Your task to perform on an android device: open app "Google Chrome" (install if not already installed) Image 0: 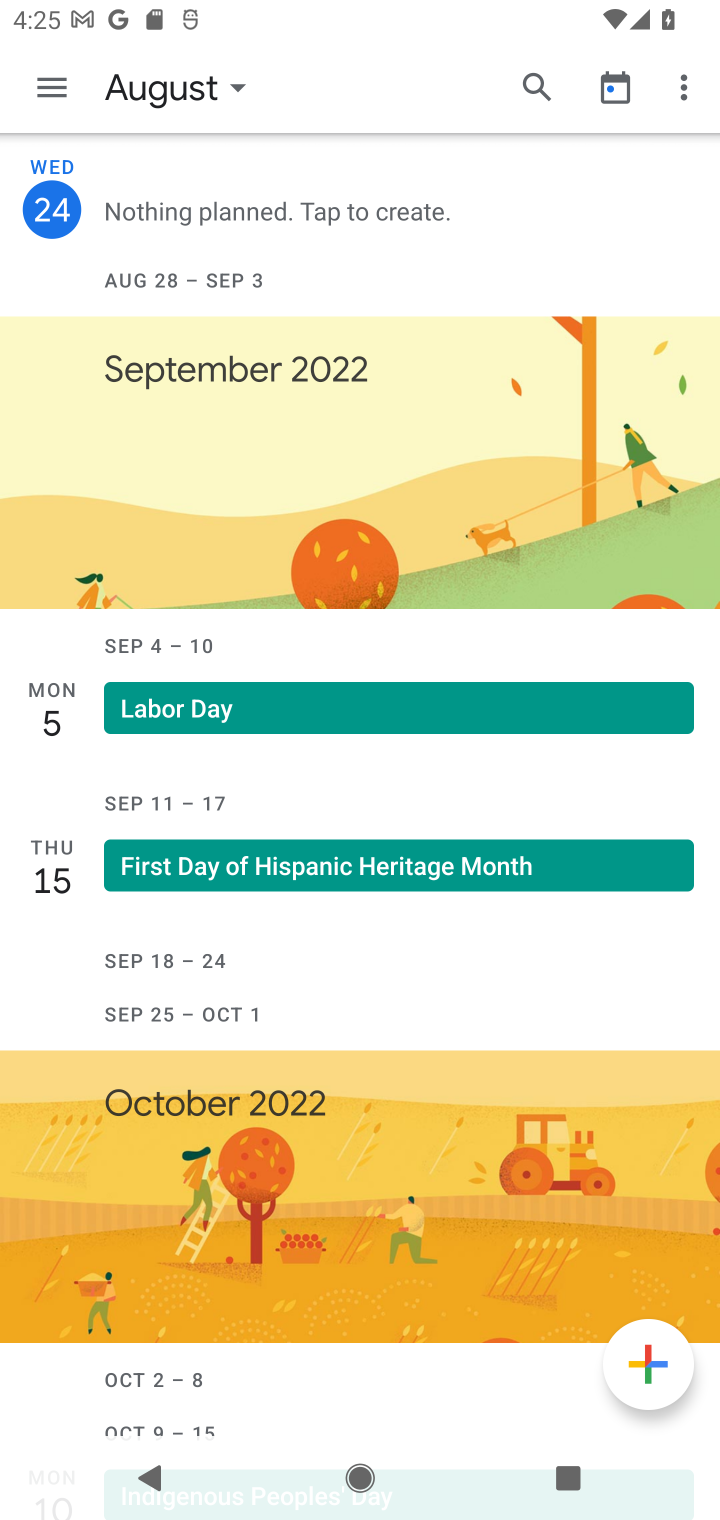
Step 0: press home button
Your task to perform on an android device: open app "Google Chrome" (install if not already installed) Image 1: 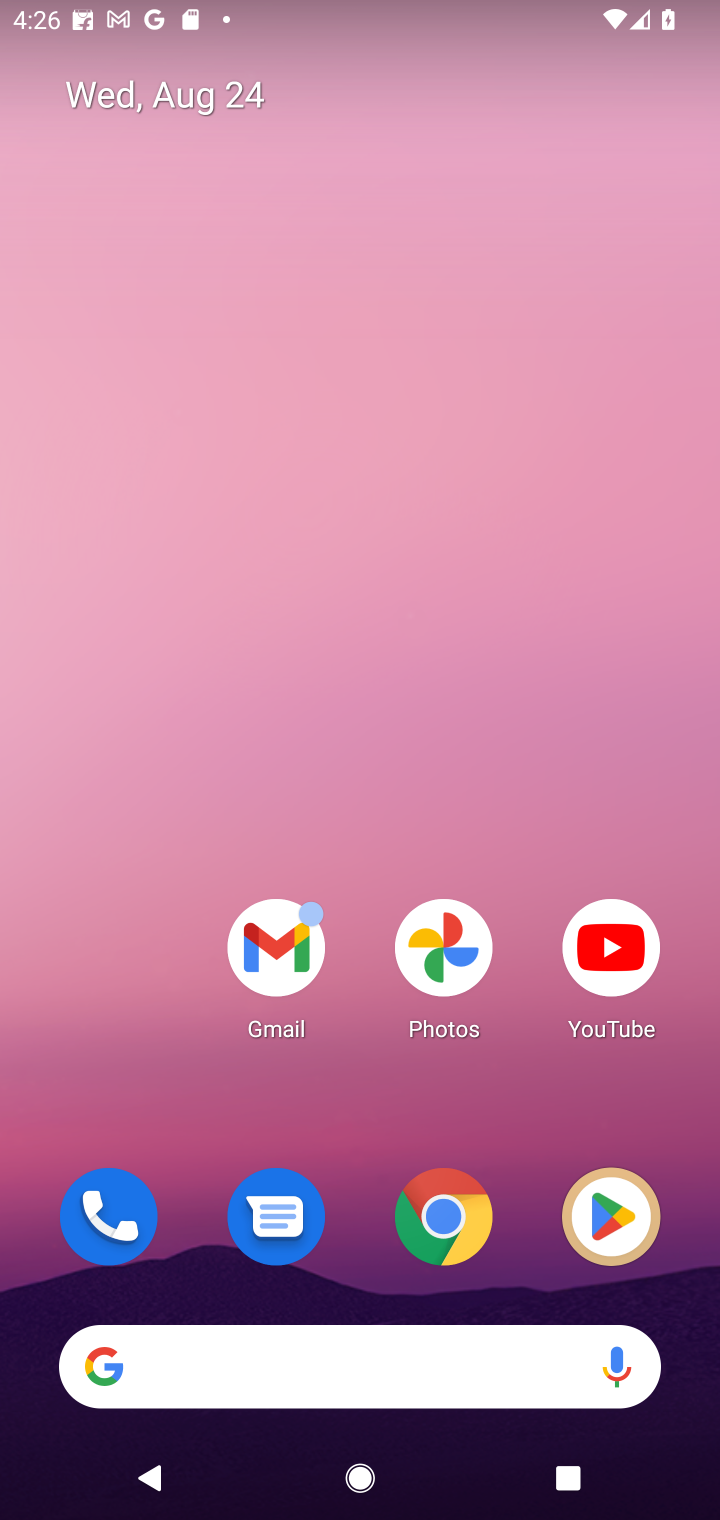
Step 1: click (637, 1198)
Your task to perform on an android device: open app "Google Chrome" (install if not already installed) Image 2: 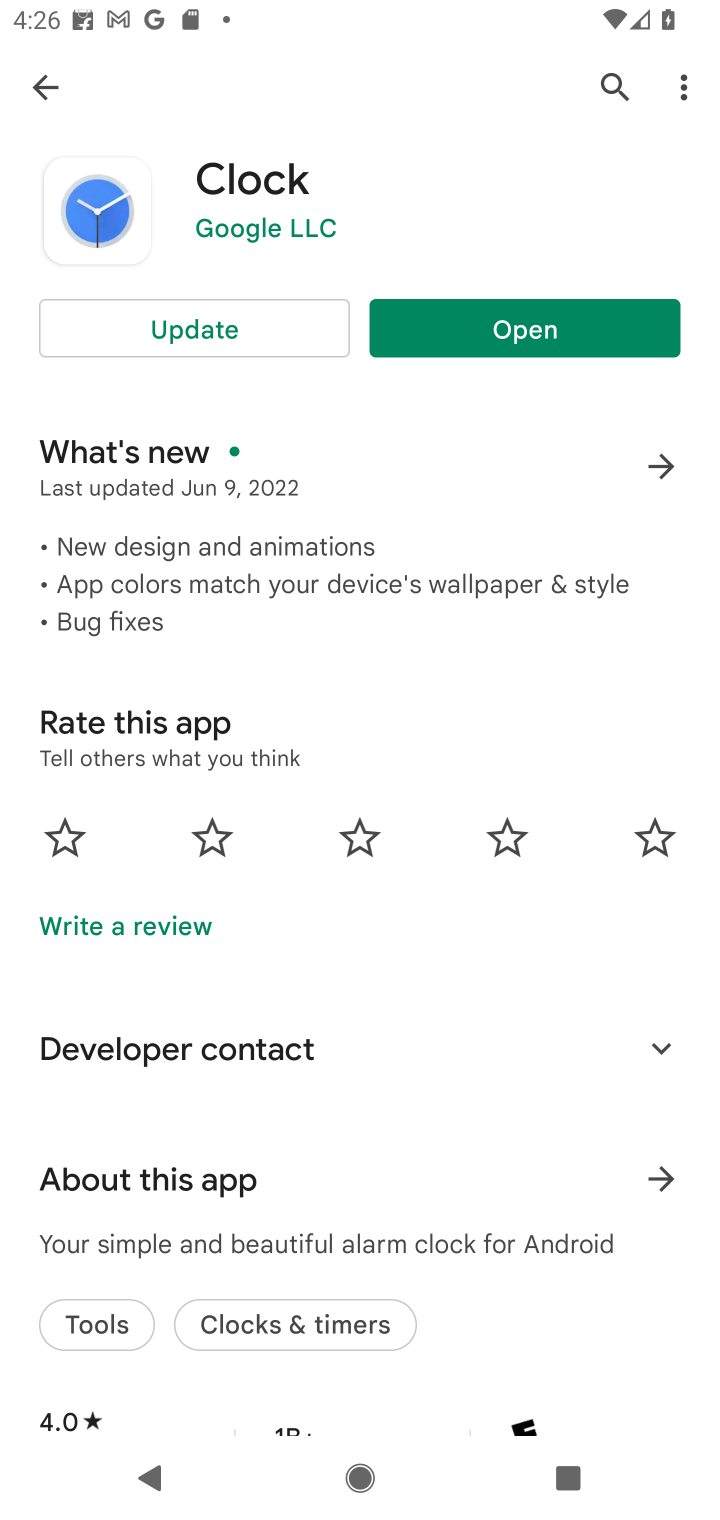
Step 2: click (616, 100)
Your task to perform on an android device: open app "Google Chrome" (install if not already installed) Image 3: 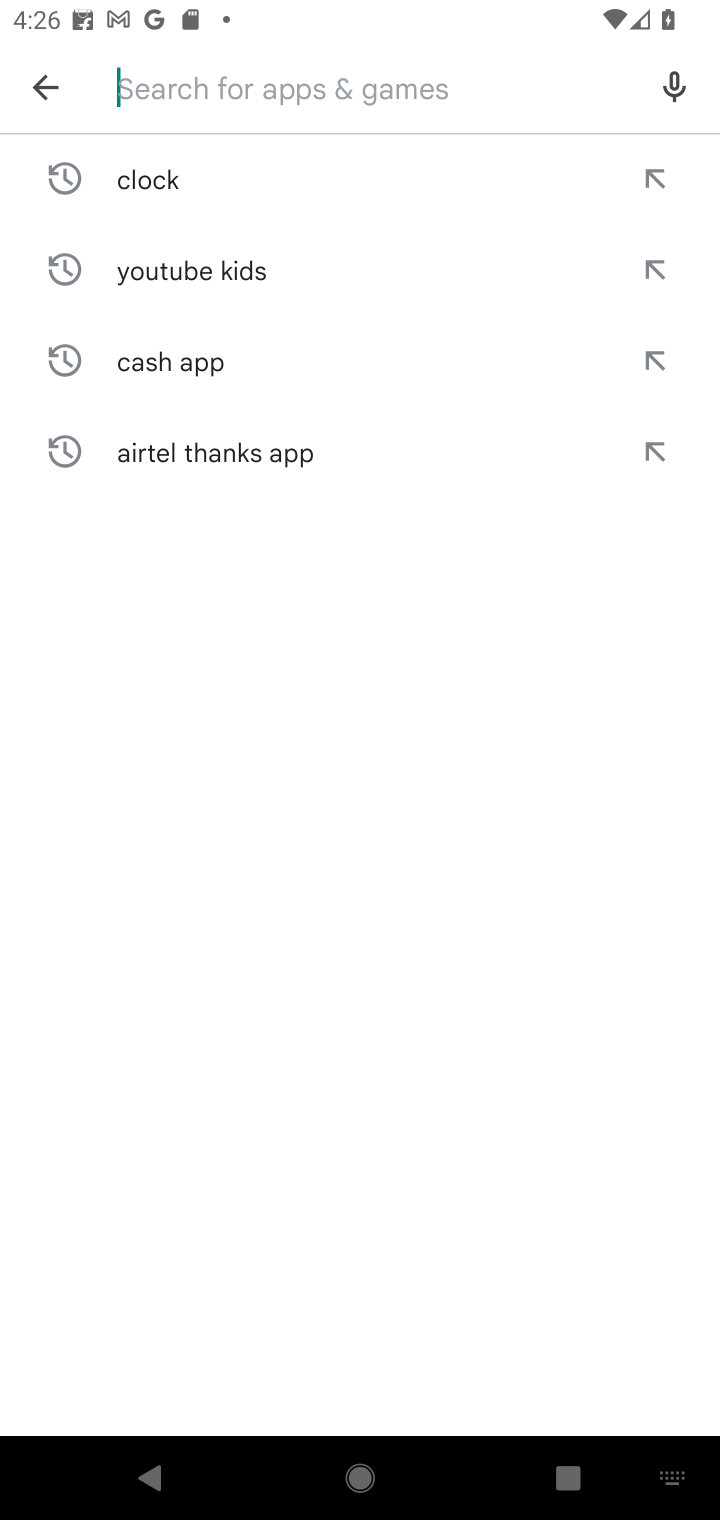
Step 3: type "Google Chrome"
Your task to perform on an android device: open app "Google Chrome" (install if not already installed) Image 4: 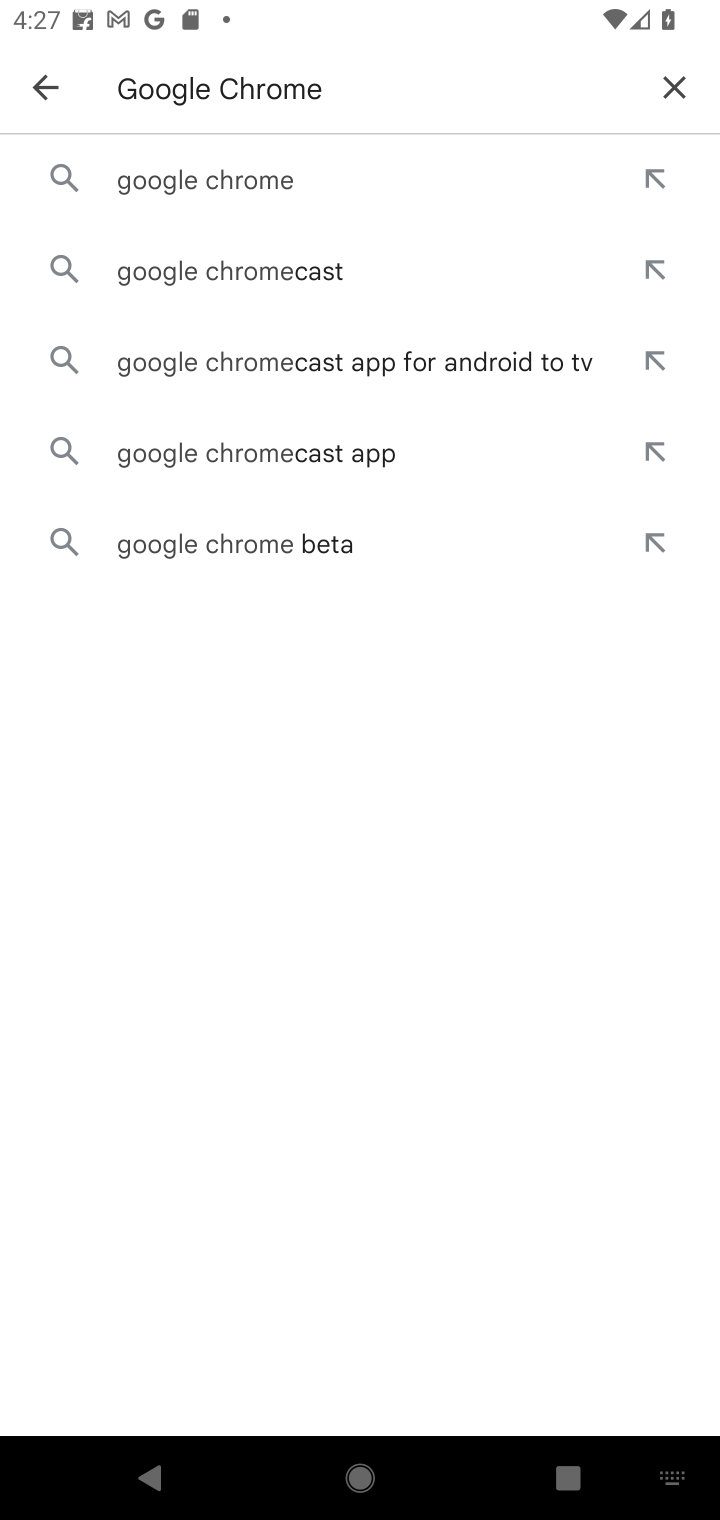
Step 4: click (243, 182)
Your task to perform on an android device: open app "Google Chrome" (install if not already installed) Image 5: 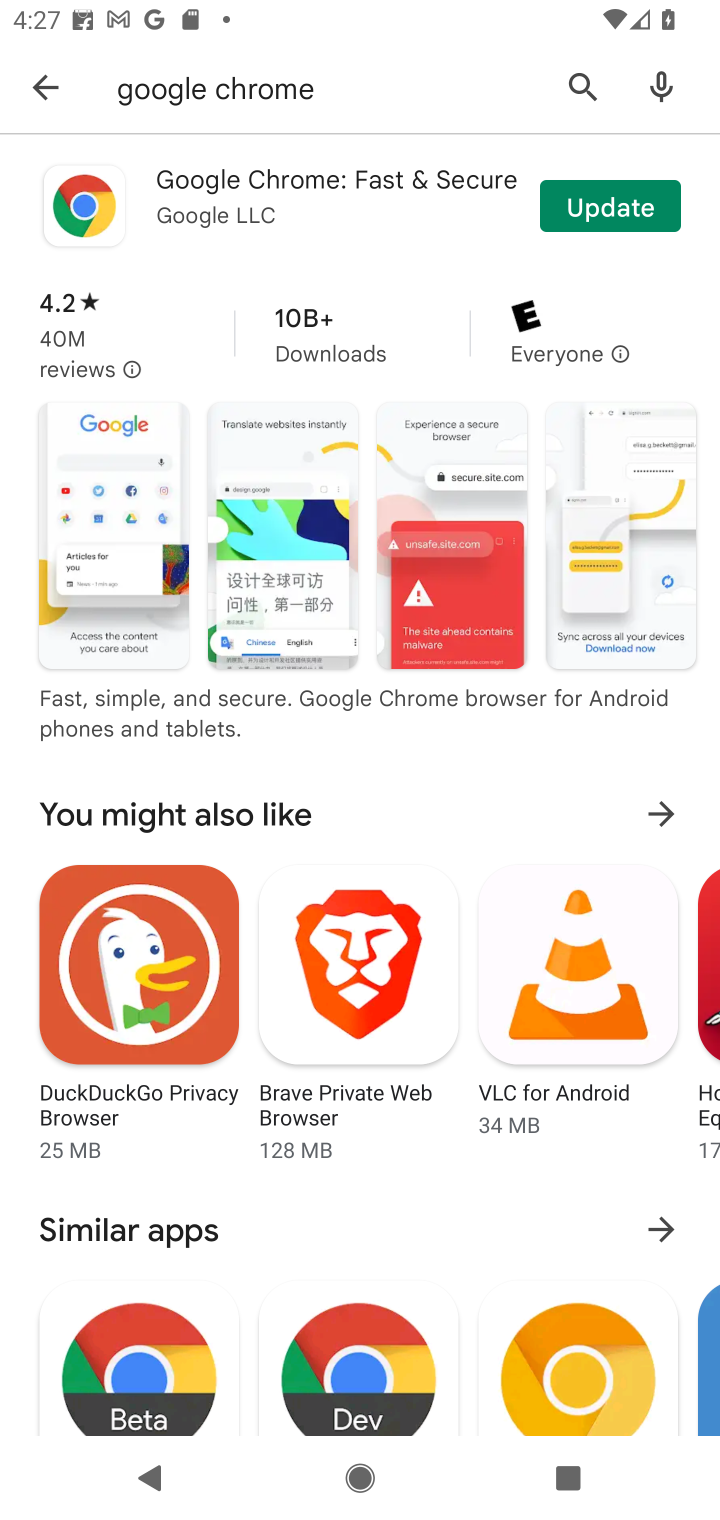
Step 5: task complete